Your task to perform on an android device: manage bookmarks in the chrome app Image 0: 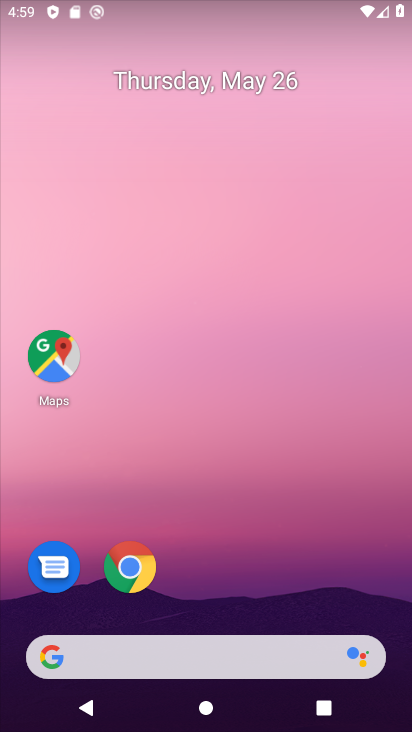
Step 0: press home button
Your task to perform on an android device: manage bookmarks in the chrome app Image 1: 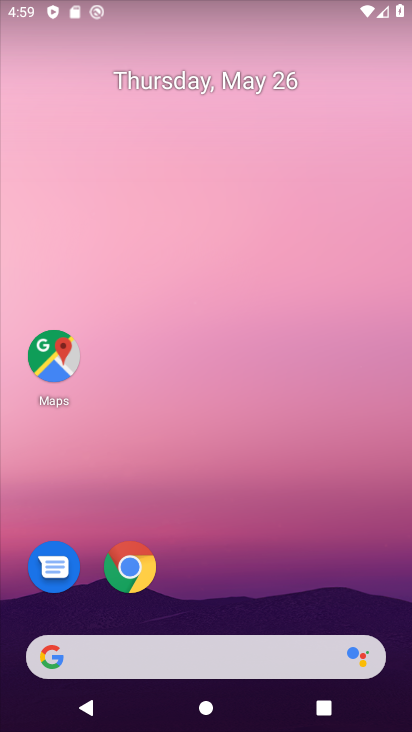
Step 1: click (131, 563)
Your task to perform on an android device: manage bookmarks in the chrome app Image 2: 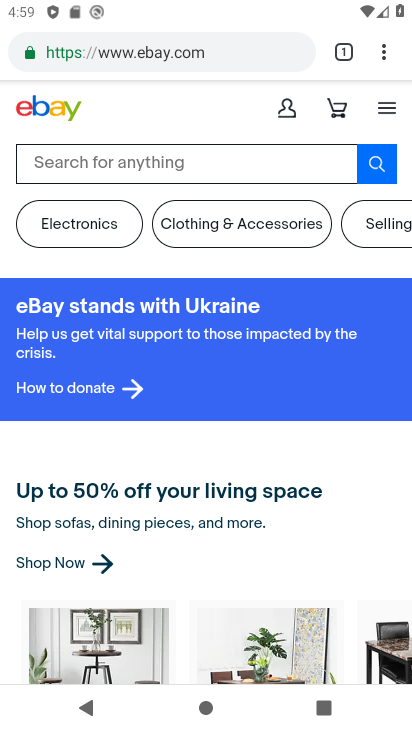
Step 2: task complete